Your task to perform on an android device: What's the weather? Image 0: 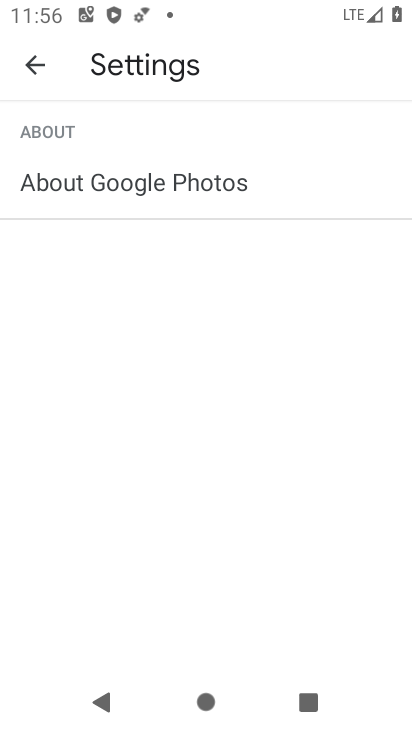
Step 0: press home button
Your task to perform on an android device: What's the weather? Image 1: 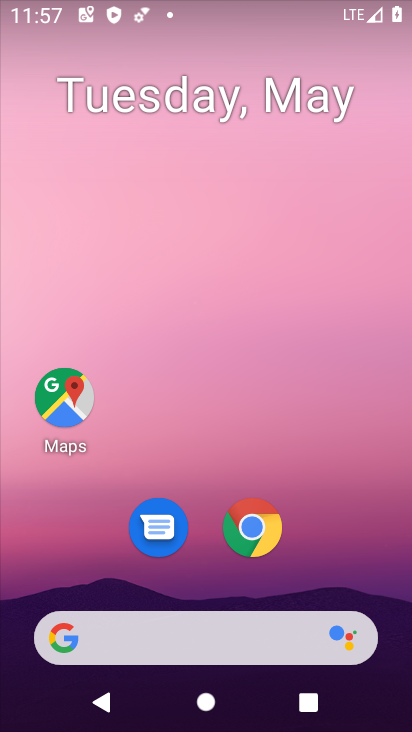
Step 1: task complete